Your task to perform on an android device: set the timer Image 0: 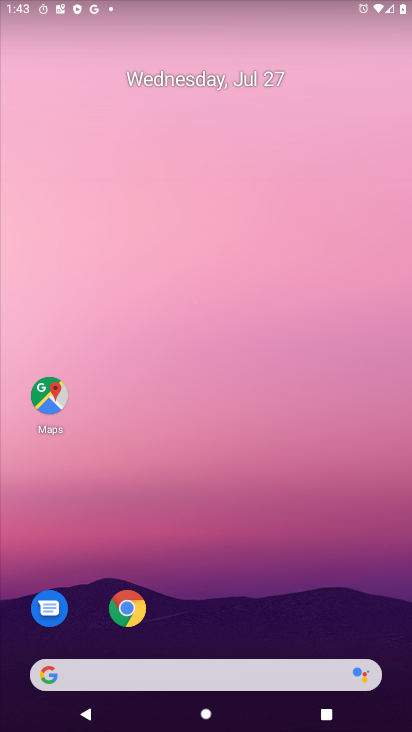
Step 0: press home button
Your task to perform on an android device: set the timer Image 1: 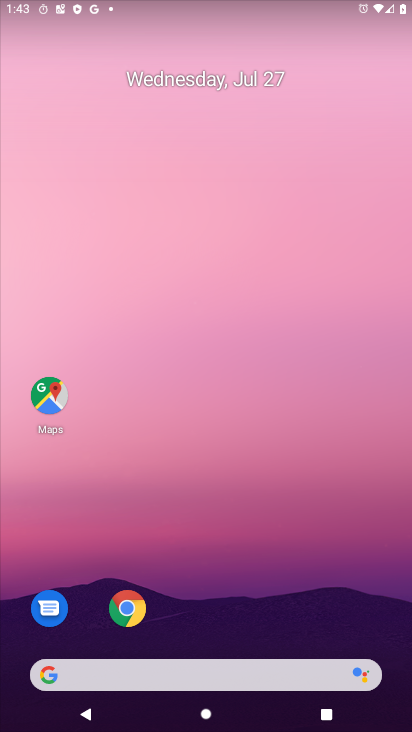
Step 1: drag from (206, 567) to (201, 124)
Your task to perform on an android device: set the timer Image 2: 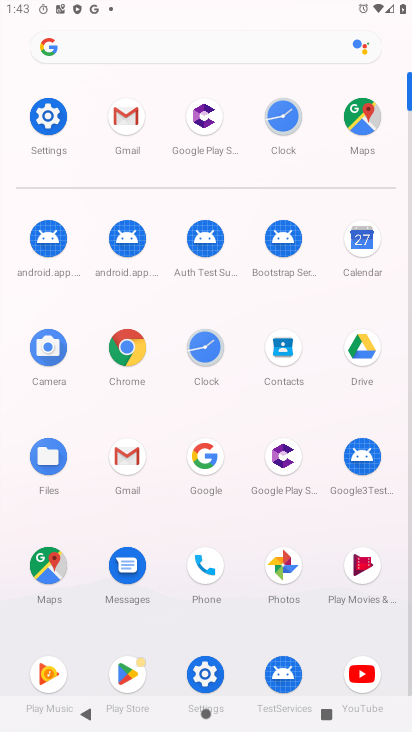
Step 2: click (194, 357)
Your task to perform on an android device: set the timer Image 3: 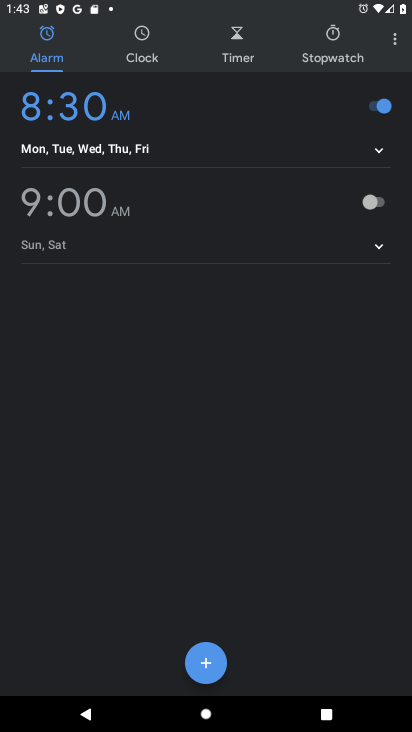
Step 3: click (232, 64)
Your task to perform on an android device: set the timer Image 4: 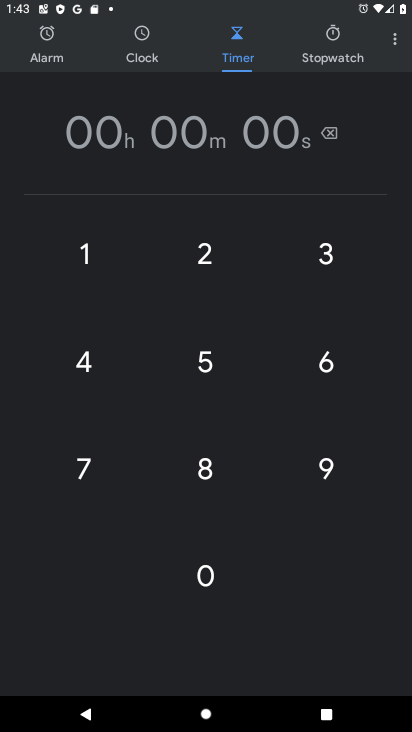
Step 4: click (200, 238)
Your task to perform on an android device: set the timer Image 5: 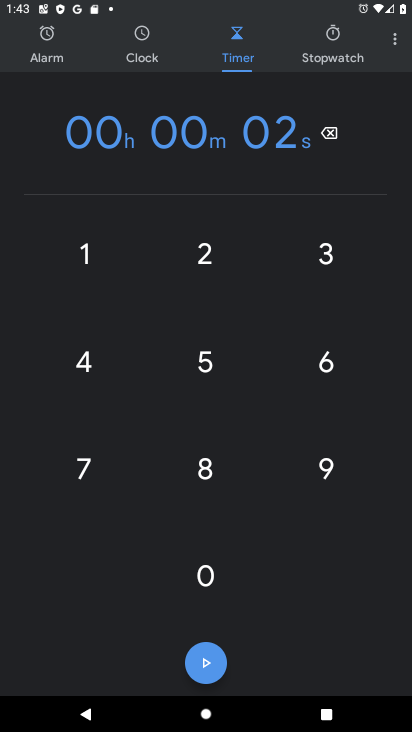
Step 5: click (205, 579)
Your task to perform on an android device: set the timer Image 6: 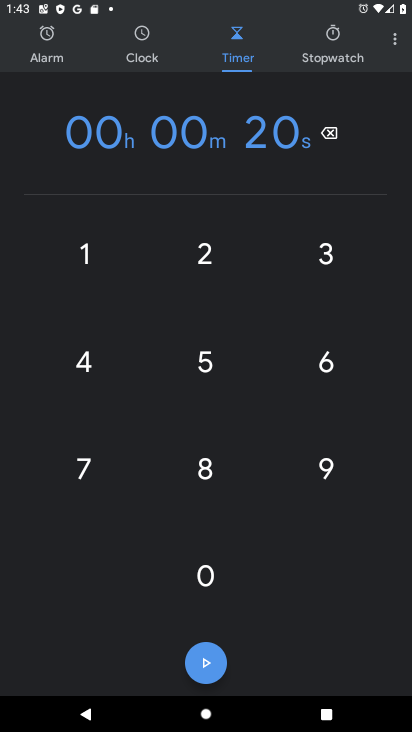
Step 6: click (205, 579)
Your task to perform on an android device: set the timer Image 7: 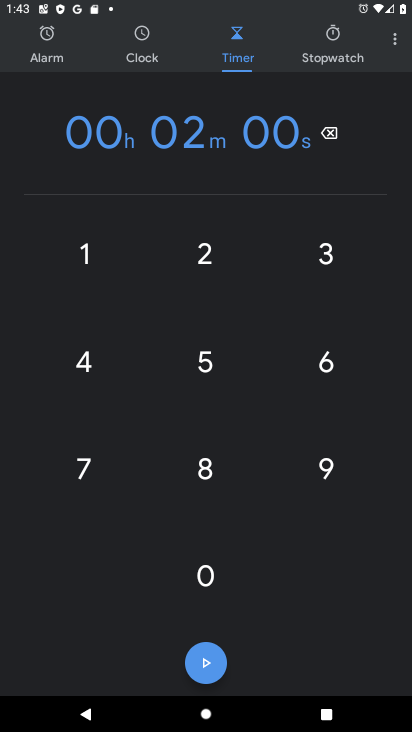
Step 7: click (208, 666)
Your task to perform on an android device: set the timer Image 8: 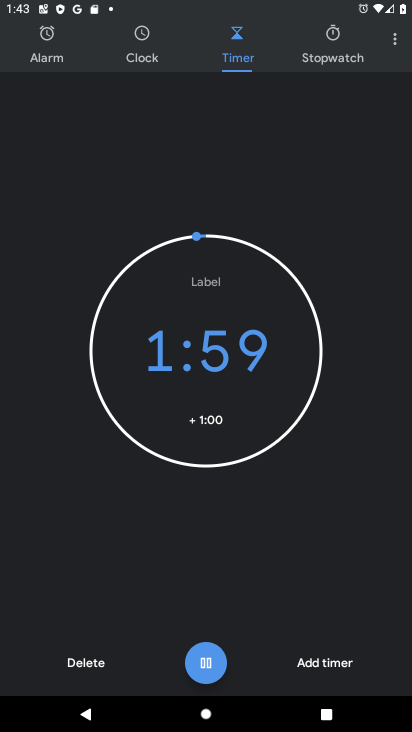
Step 8: task complete